Your task to perform on an android device: Search for vegetarian restaurants on Maps Image 0: 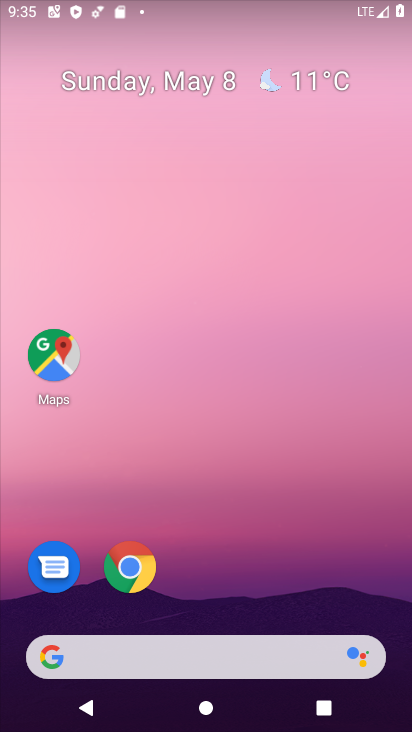
Step 0: click (42, 349)
Your task to perform on an android device: Search for vegetarian restaurants on Maps Image 1: 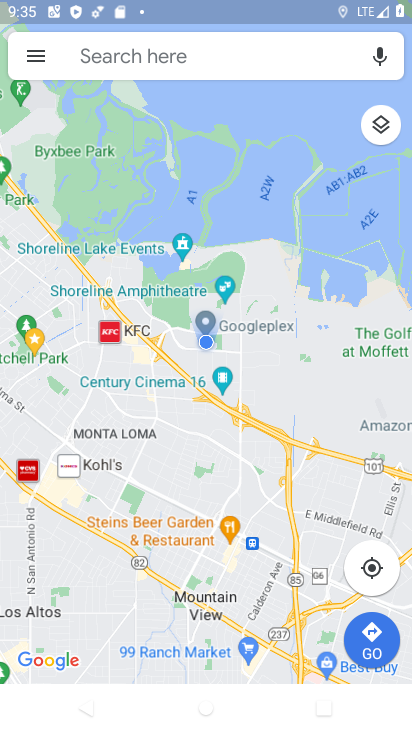
Step 1: click (103, 54)
Your task to perform on an android device: Search for vegetarian restaurants on Maps Image 2: 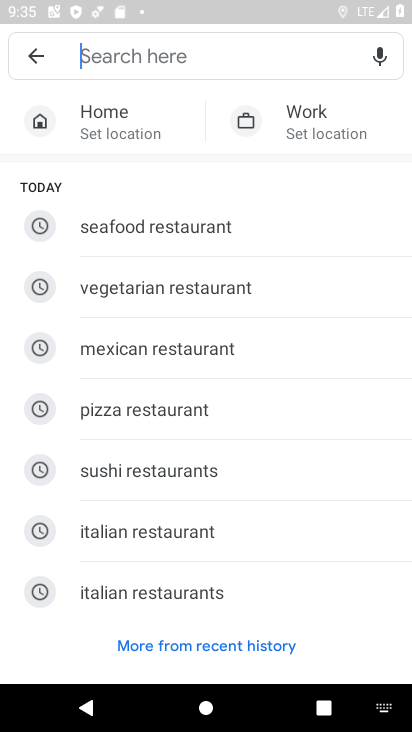
Step 2: click (115, 285)
Your task to perform on an android device: Search for vegetarian restaurants on Maps Image 3: 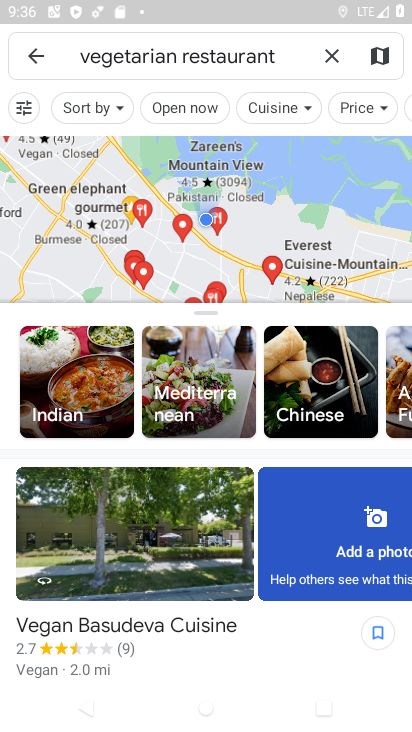
Step 3: task complete